Your task to perform on an android device: Open maps Image 0: 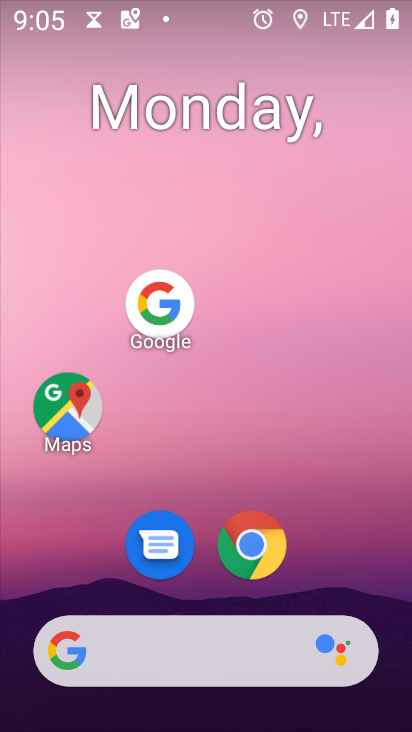
Step 0: press home button
Your task to perform on an android device: Open maps Image 1: 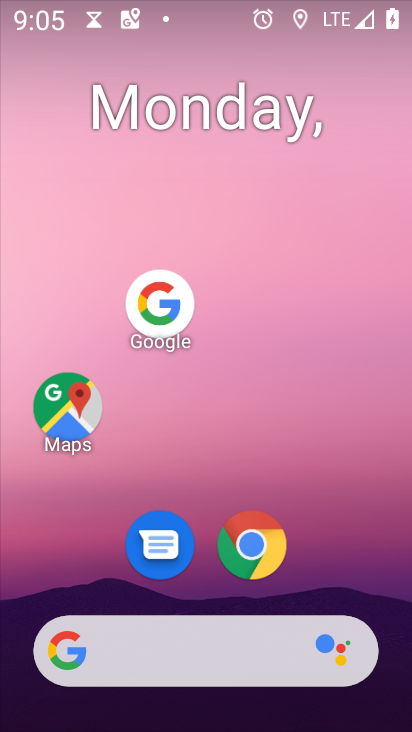
Step 1: click (75, 412)
Your task to perform on an android device: Open maps Image 2: 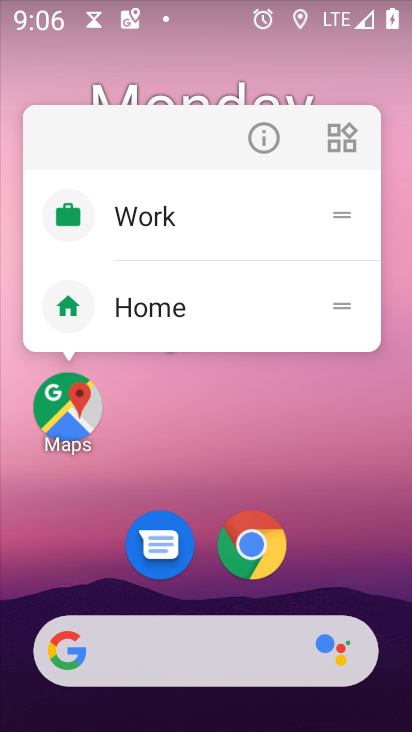
Step 2: click (57, 418)
Your task to perform on an android device: Open maps Image 3: 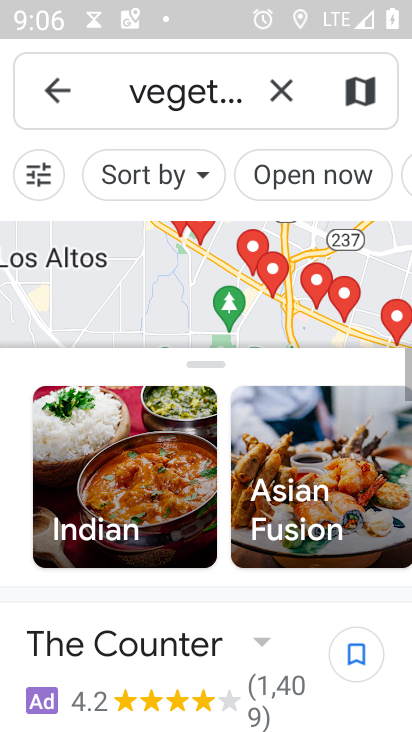
Step 3: click (70, 81)
Your task to perform on an android device: Open maps Image 4: 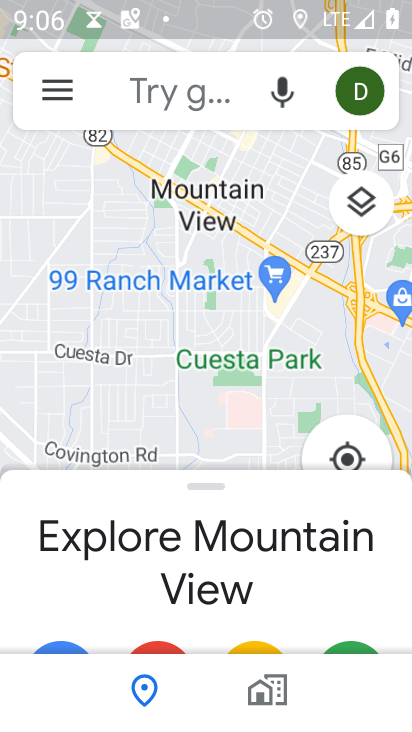
Step 4: task complete